Your task to perform on an android device: Open ESPN.com Image 0: 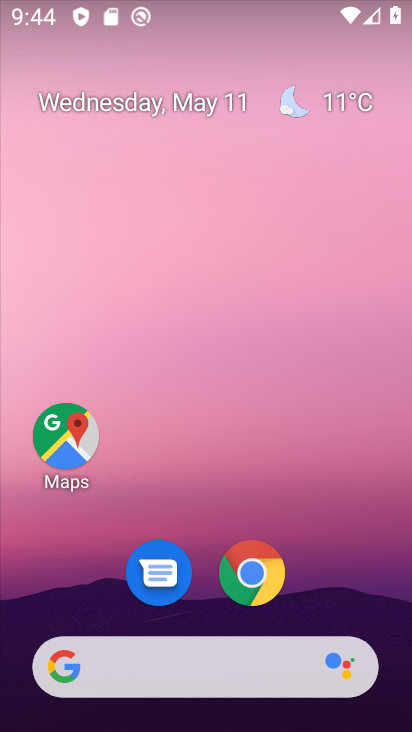
Step 0: drag from (319, 497) to (189, 10)
Your task to perform on an android device: Open ESPN.com Image 1: 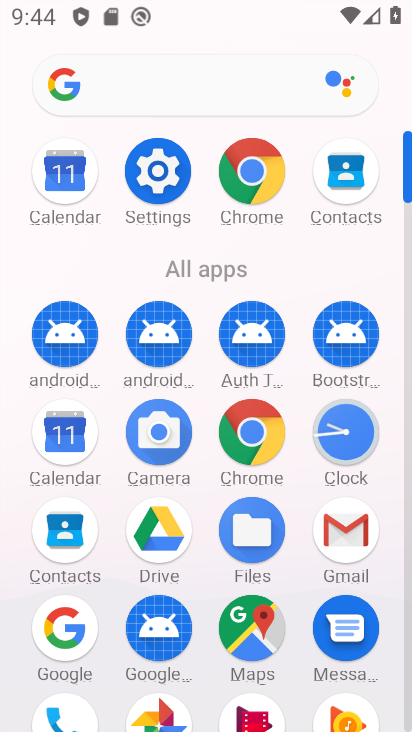
Step 1: drag from (258, 373) to (131, 19)
Your task to perform on an android device: Open ESPN.com Image 2: 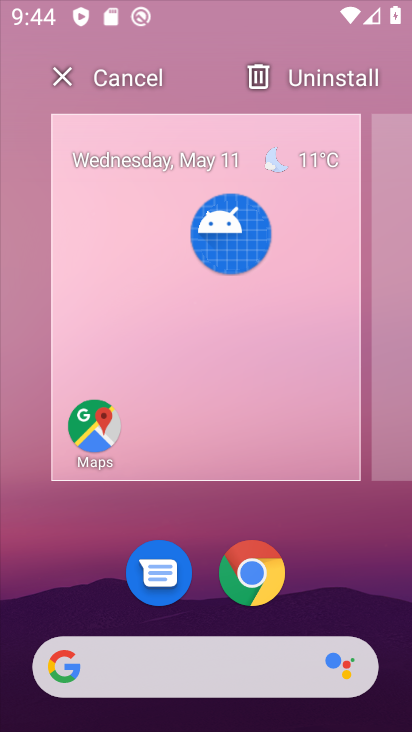
Step 2: drag from (294, 387) to (120, 69)
Your task to perform on an android device: Open ESPN.com Image 3: 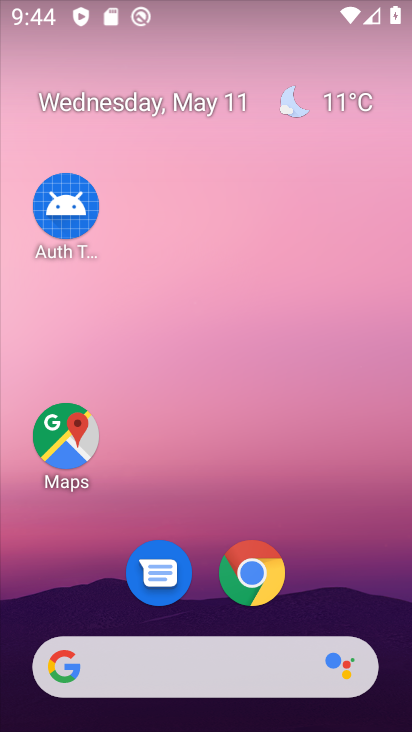
Step 3: click (195, 206)
Your task to perform on an android device: Open ESPN.com Image 4: 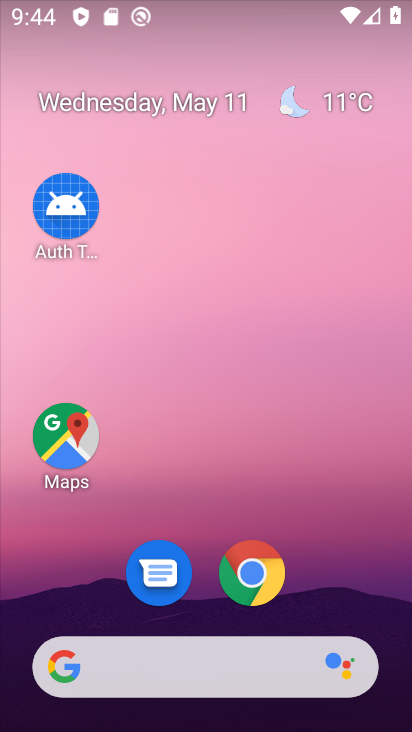
Step 4: click (143, 162)
Your task to perform on an android device: Open ESPN.com Image 5: 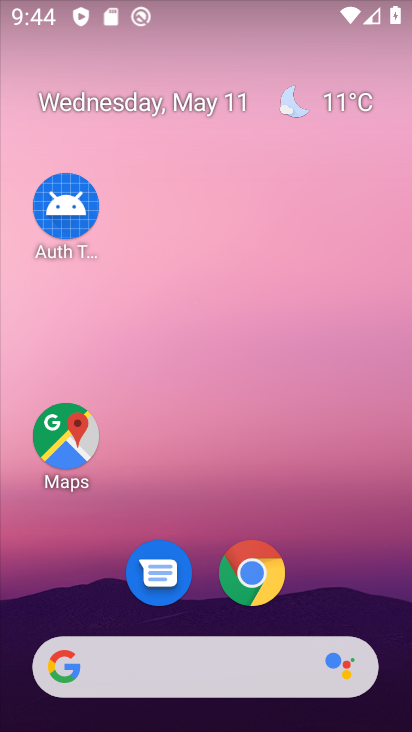
Step 5: drag from (332, 515) to (164, 35)
Your task to perform on an android device: Open ESPN.com Image 6: 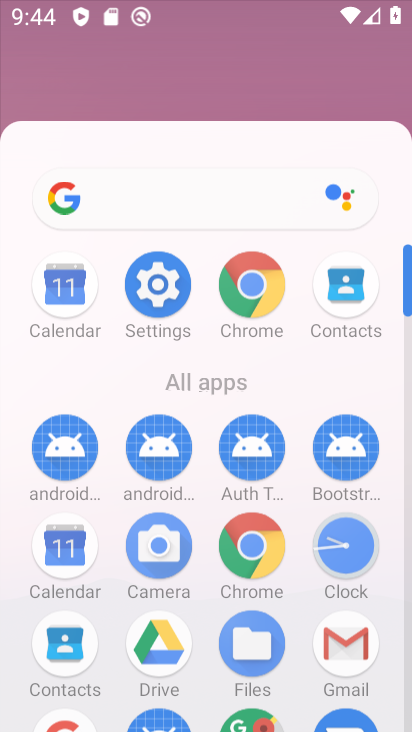
Step 6: drag from (234, 366) to (174, 2)
Your task to perform on an android device: Open ESPN.com Image 7: 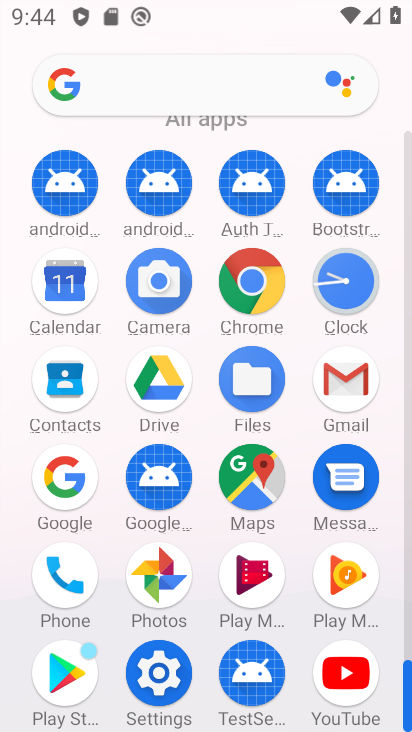
Step 7: click (255, 280)
Your task to perform on an android device: Open ESPN.com Image 8: 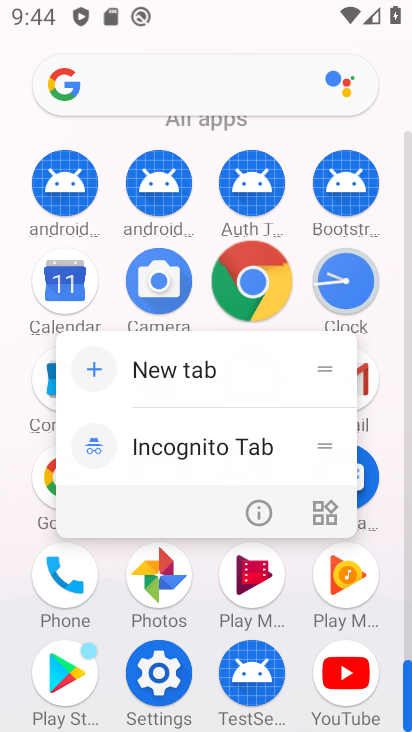
Step 8: click (255, 280)
Your task to perform on an android device: Open ESPN.com Image 9: 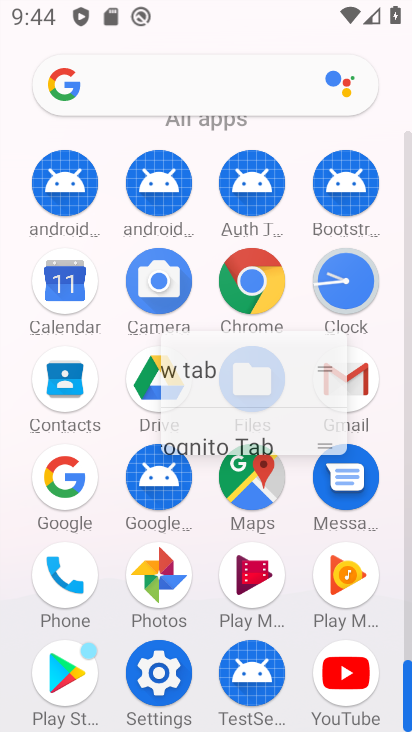
Step 9: click (251, 279)
Your task to perform on an android device: Open ESPN.com Image 10: 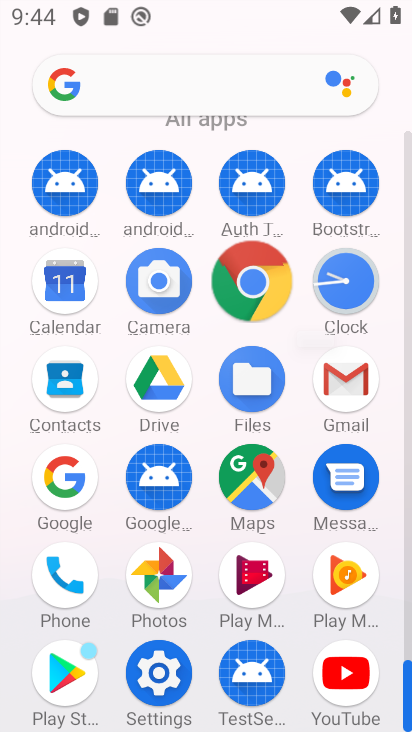
Step 10: click (251, 279)
Your task to perform on an android device: Open ESPN.com Image 11: 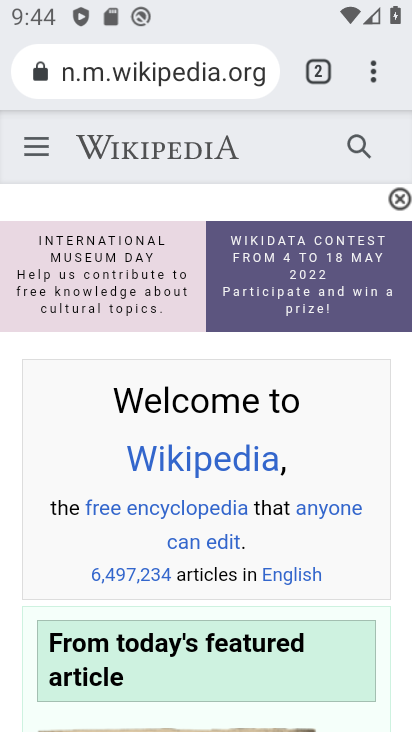
Step 11: drag from (367, 78) to (242, 68)
Your task to perform on an android device: Open ESPN.com Image 12: 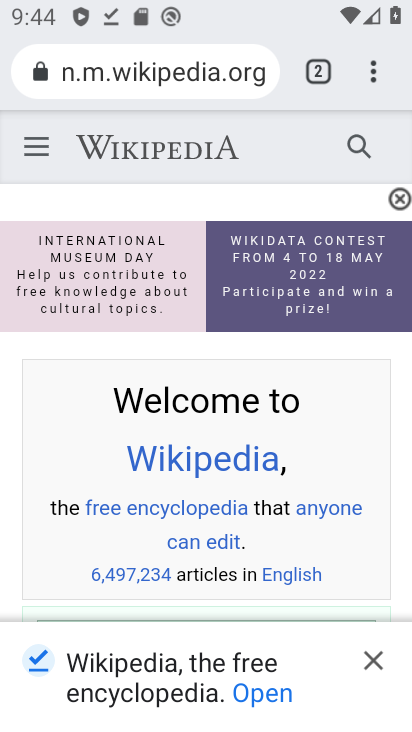
Step 12: drag from (374, 72) to (130, 141)
Your task to perform on an android device: Open ESPN.com Image 13: 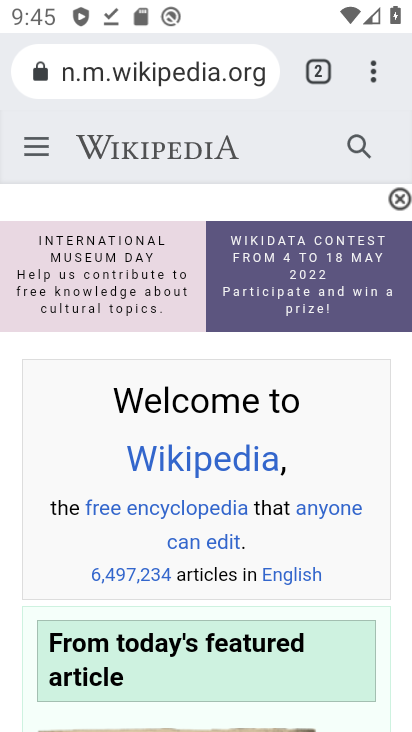
Step 13: click (132, 135)
Your task to perform on an android device: Open ESPN.com Image 14: 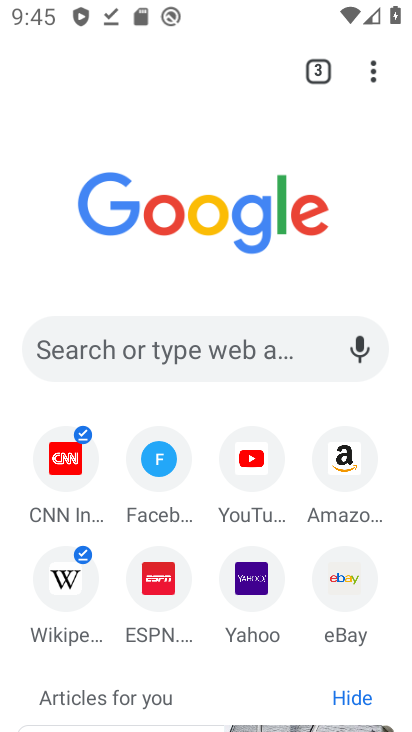
Step 14: click (171, 583)
Your task to perform on an android device: Open ESPN.com Image 15: 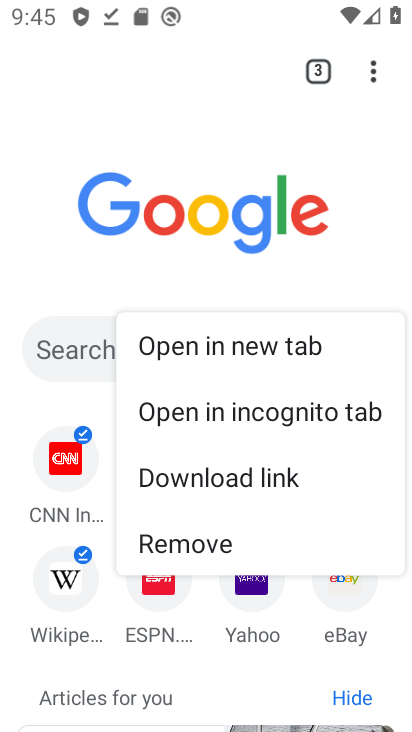
Step 15: click (158, 579)
Your task to perform on an android device: Open ESPN.com Image 16: 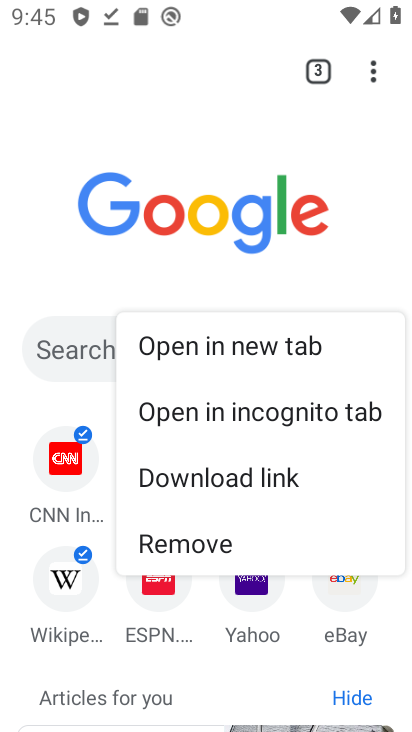
Step 16: click (254, 332)
Your task to perform on an android device: Open ESPN.com Image 17: 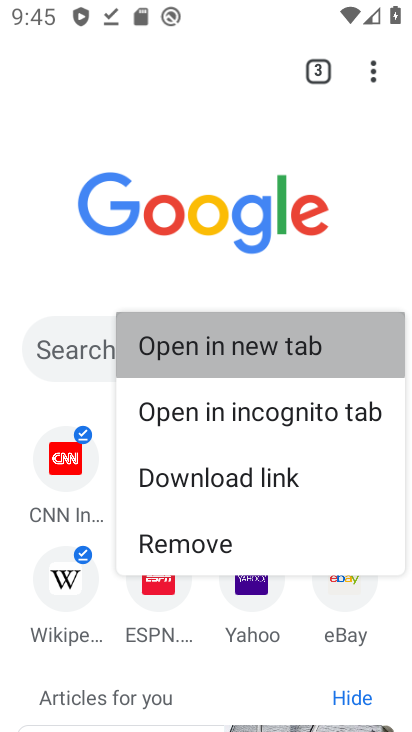
Step 17: click (255, 333)
Your task to perform on an android device: Open ESPN.com Image 18: 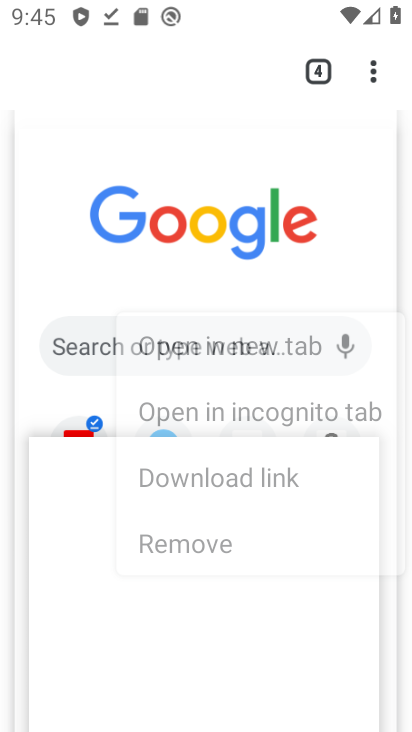
Step 18: click (253, 331)
Your task to perform on an android device: Open ESPN.com Image 19: 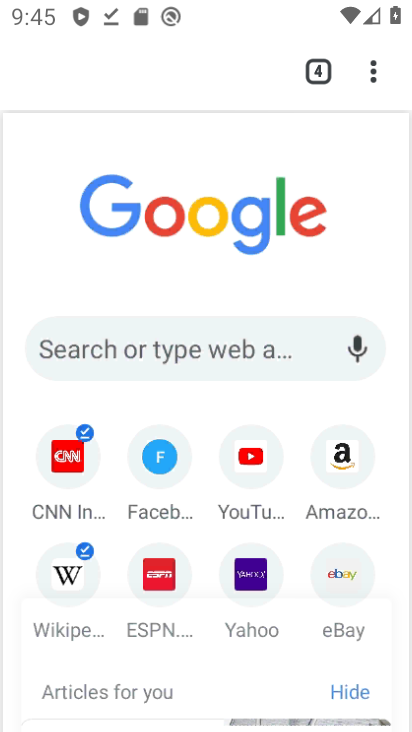
Step 19: click (252, 330)
Your task to perform on an android device: Open ESPN.com Image 20: 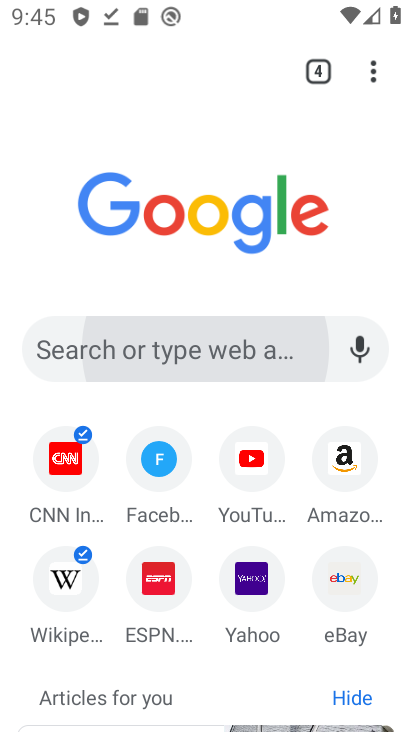
Step 20: click (249, 331)
Your task to perform on an android device: Open ESPN.com Image 21: 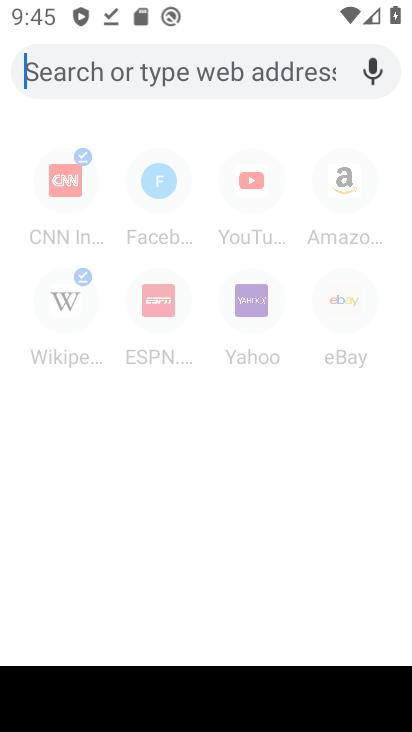
Step 21: click (74, 171)
Your task to perform on an android device: Open ESPN.com Image 22: 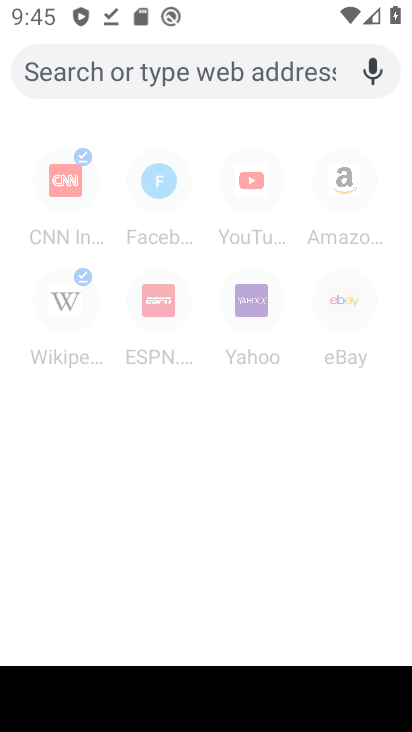
Step 22: click (68, 175)
Your task to perform on an android device: Open ESPN.com Image 23: 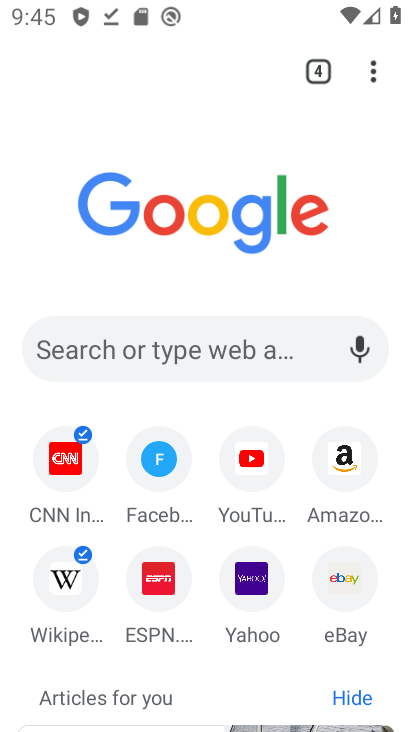
Step 23: click (60, 468)
Your task to perform on an android device: Open ESPN.com Image 24: 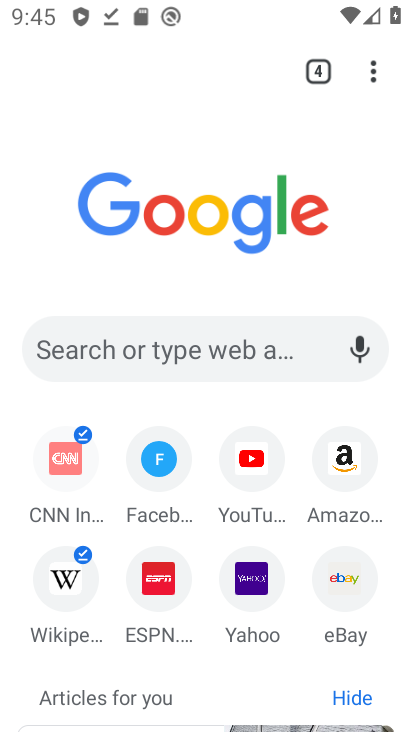
Step 24: click (60, 463)
Your task to perform on an android device: Open ESPN.com Image 25: 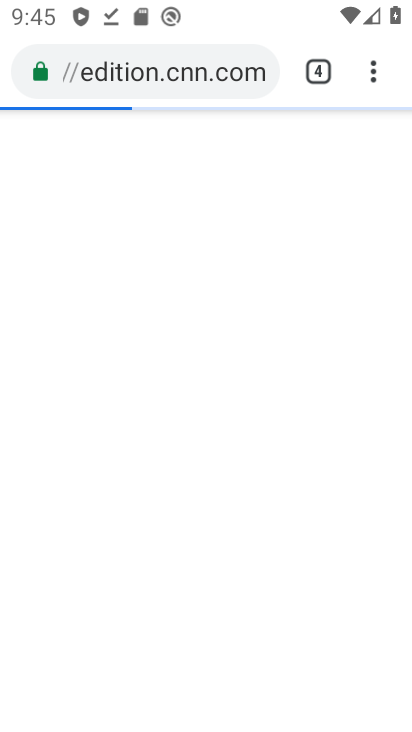
Step 25: click (63, 462)
Your task to perform on an android device: Open ESPN.com Image 26: 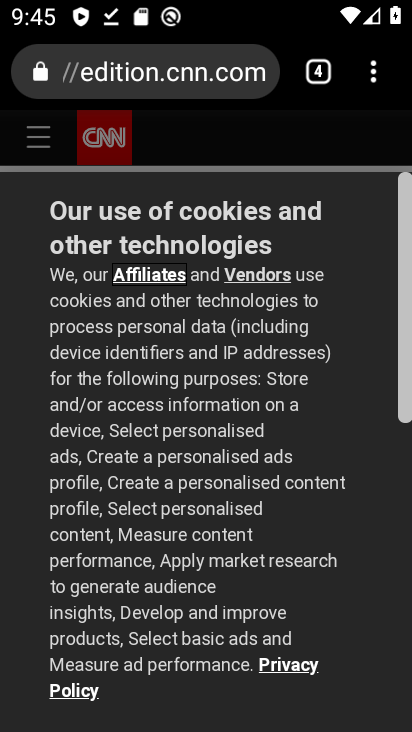
Step 26: task complete